Your task to perform on an android device: check battery use Image 0: 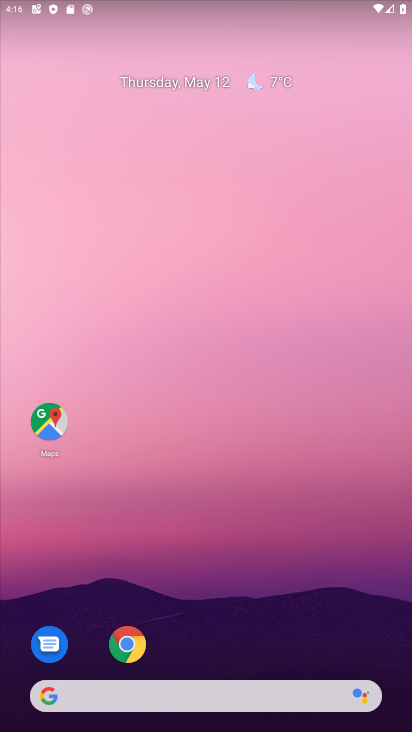
Step 0: drag from (226, 628) to (231, 75)
Your task to perform on an android device: check battery use Image 1: 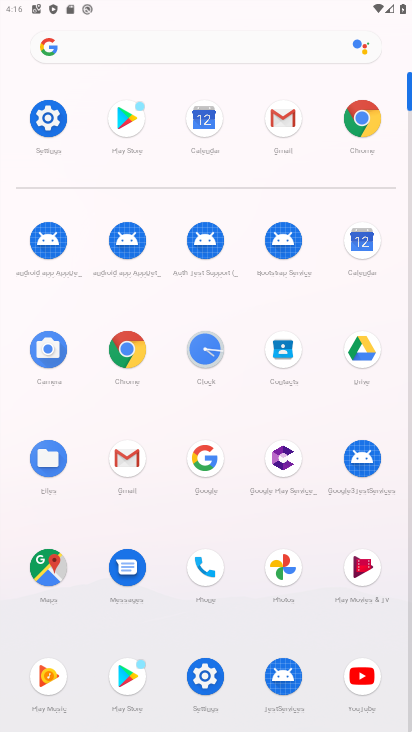
Step 1: click (50, 122)
Your task to perform on an android device: check battery use Image 2: 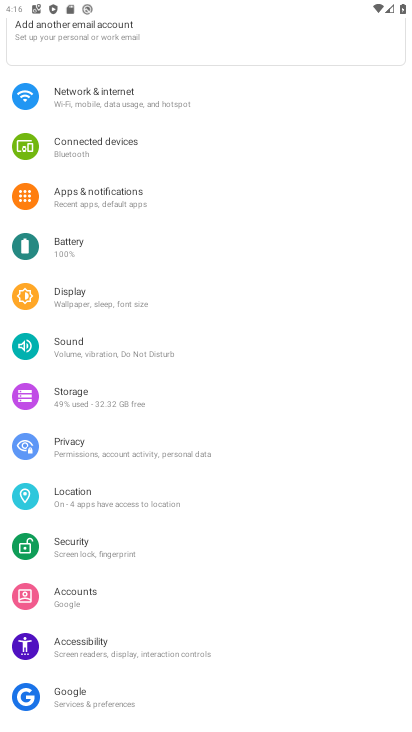
Step 2: click (80, 246)
Your task to perform on an android device: check battery use Image 3: 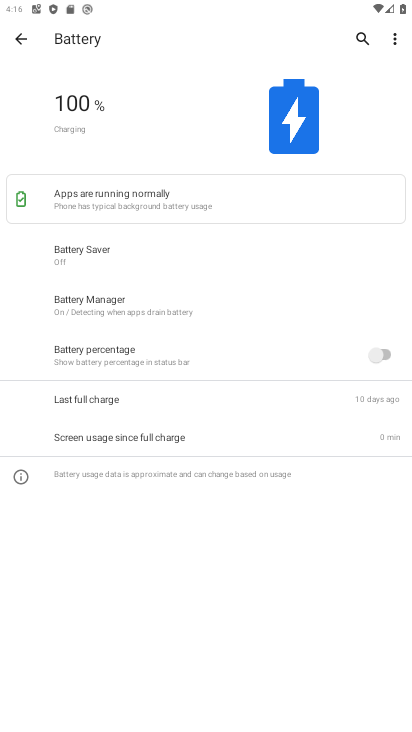
Step 3: click (393, 42)
Your task to perform on an android device: check battery use Image 4: 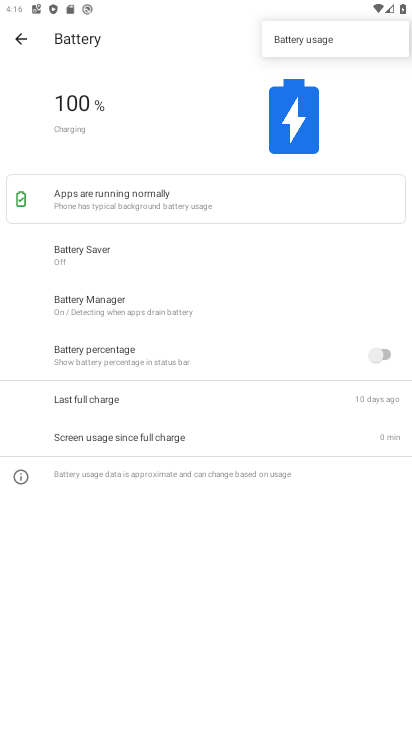
Step 4: click (279, 46)
Your task to perform on an android device: check battery use Image 5: 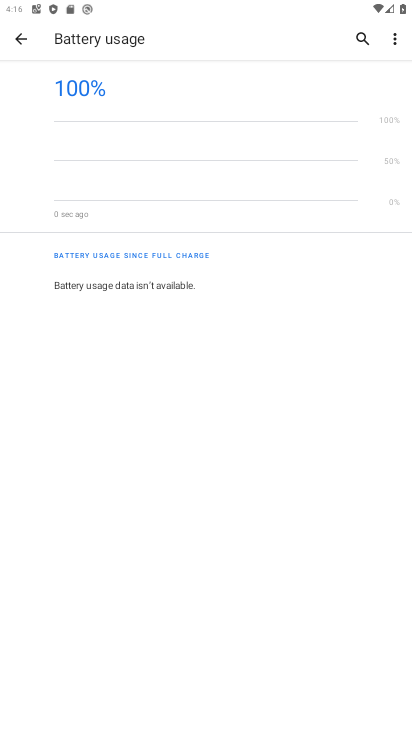
Step 5: task complete